Your task to perform on an android device: open app "Google Play Music" Image 0: 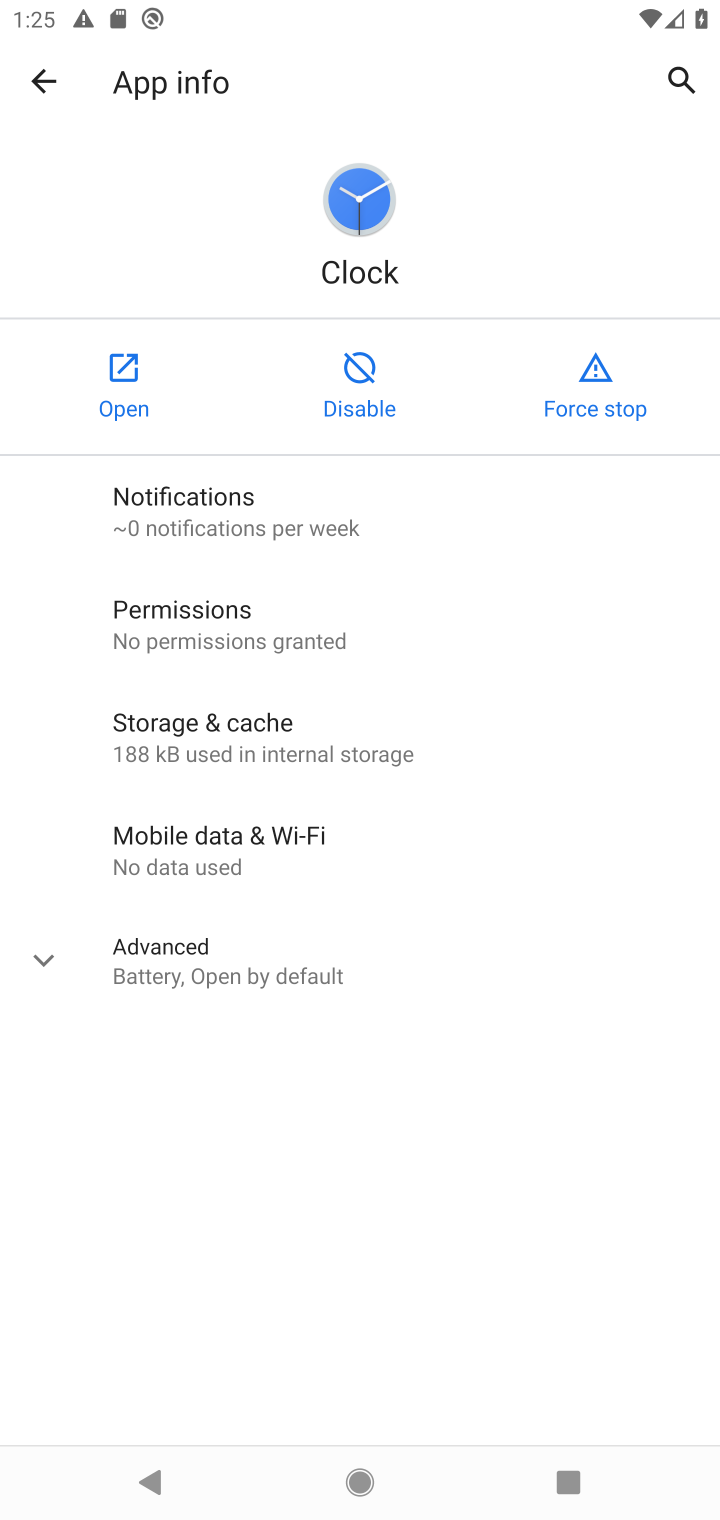
Step 0: press home button
Your task to perform on an android device: open app "Google Play Music" Image 1: 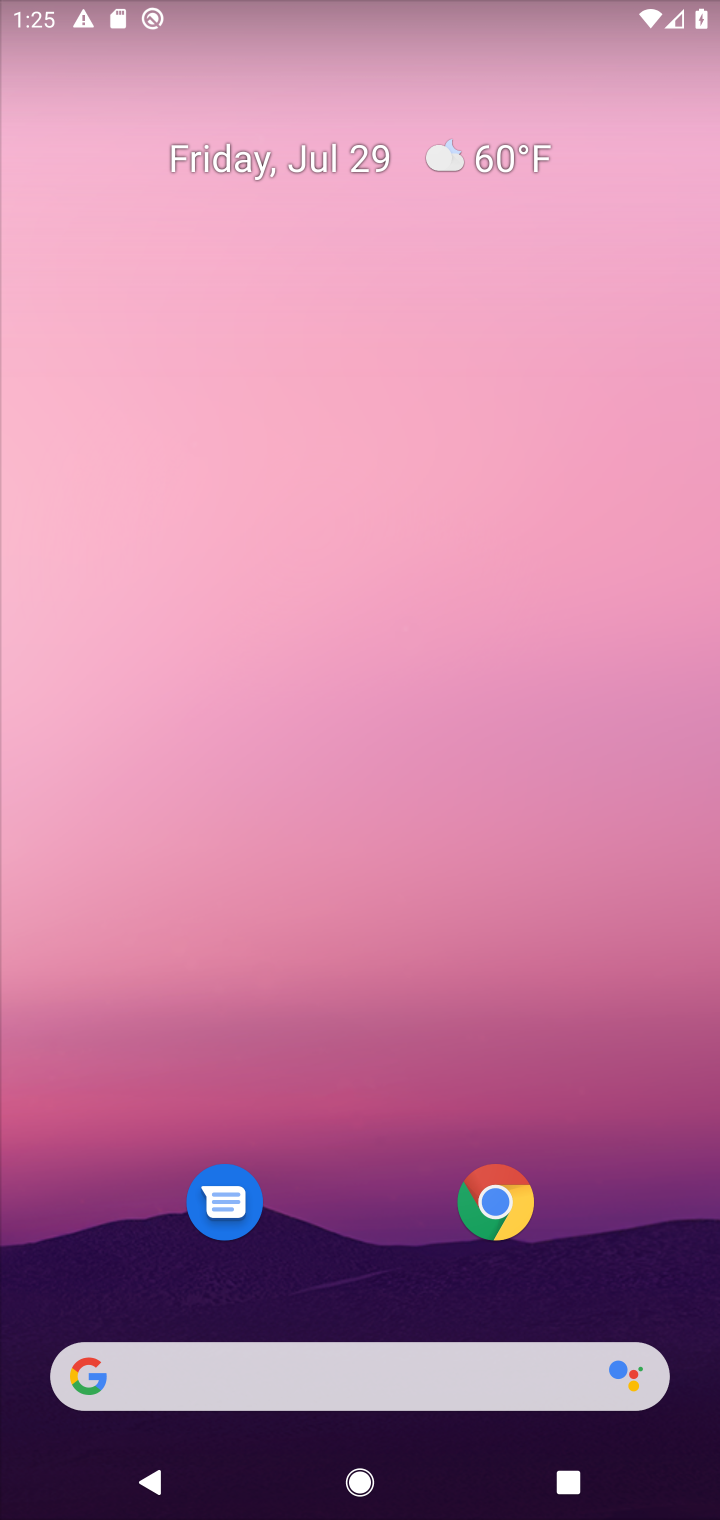
Step 1: drag from (401, 1317) to (489, 295)
Your task to perform on an android device: open app "Google Play Music" Image 2: 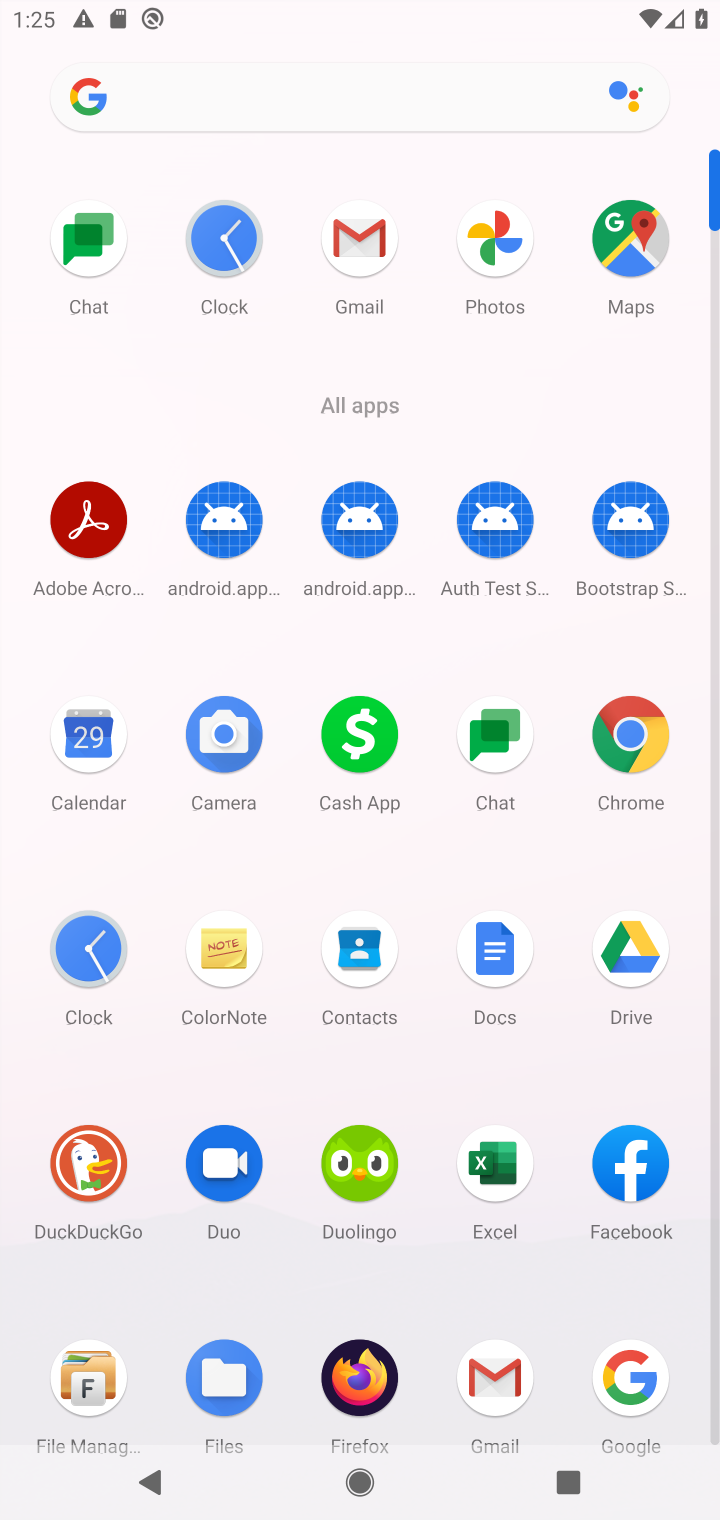
Step 2: click (713, 1426)
Your task to perform on an android device: open app "Google Play Music" Image 3: 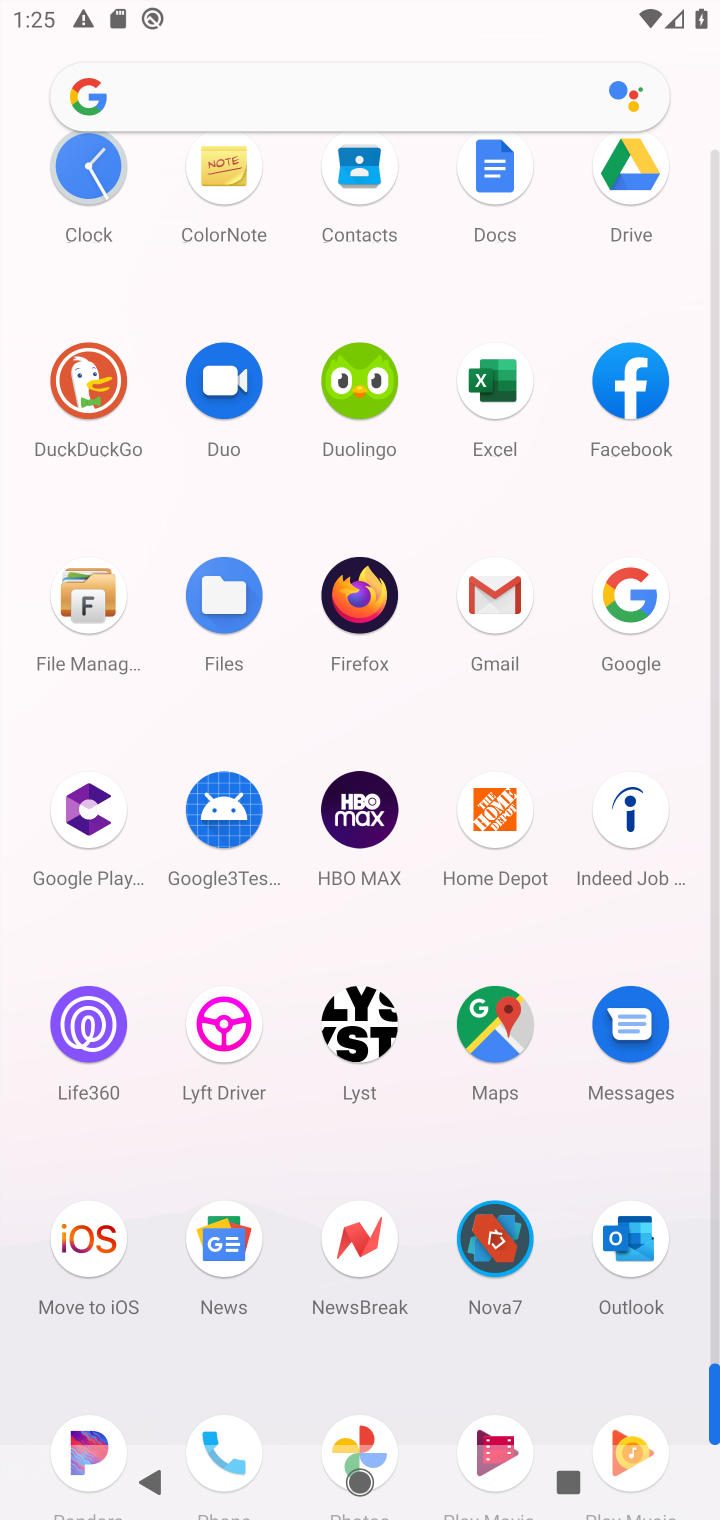
Step 3: task complete